Your task to perform on an android device: Add logitech g pro to the cart on target.com, then select checkout. Image 0: 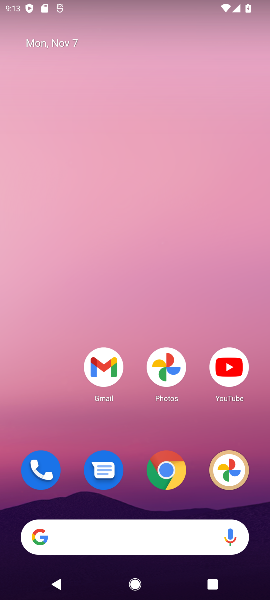
Step 0: click (163, 447)
Your task to perform on an android device: Add logitech g pro to the cart on target.com, then select checkout. Image 1: 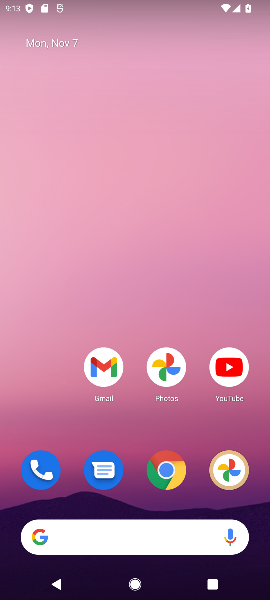
Step 1: click (169, 461)
Your task to perform on an android device: Add logitech g pro to the cart on target.com, then select checkout. Image 2: 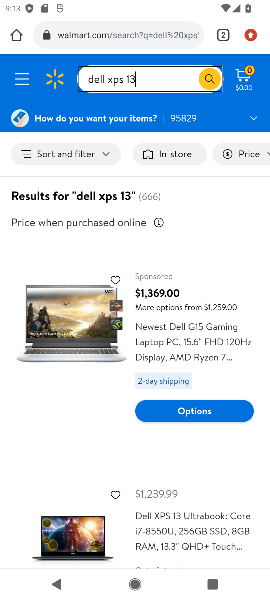
Step 2: click (132, 33)
Your task to perform on an android device: Add logitech g pro to the cart on target.com, then select checkout. Image 3: 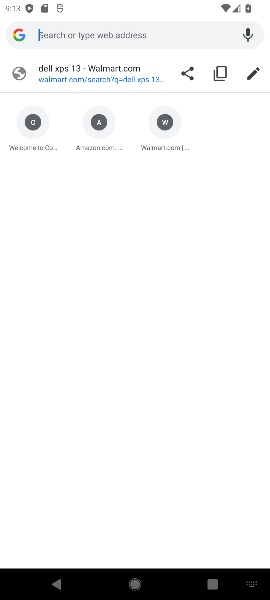
Step 3: type "target"
Your task to perform on an android device: Add logitech g pro to the cart on target.com, then select checkout. Image 4: 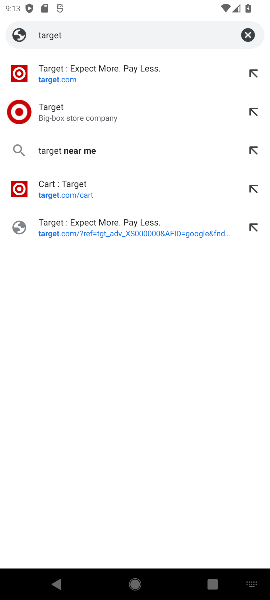
Step 4: click (110, 119)
Your task to perform on an android device: Add logitech g pro to the cart on target.com, then select checkout. Image 5: 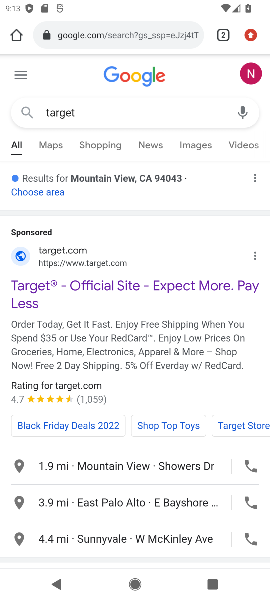
Step 5: click (79, 294)
Your task to perform on an android device: Add logitech g pro to the cart on target.com, then select checkout. Image 6: 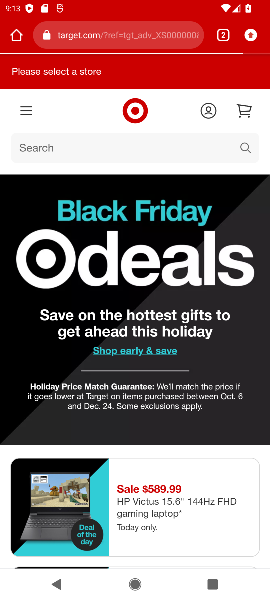
Step 6: click (84, 151)
Your task to perform on an android device: Add logitech g pro to the cart on target.com, then select checkout. Image 7: 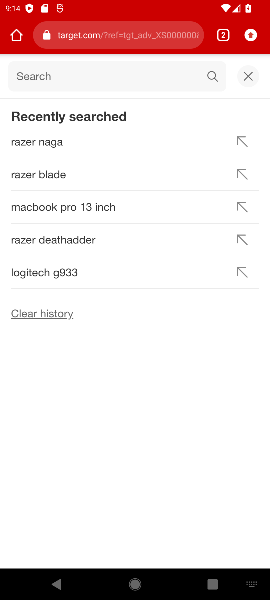
Step 7: type "logitech g pro"
Your task to perform on an android device: Add logitech g pro to the cart on target.com, then select checkout. Image 8: 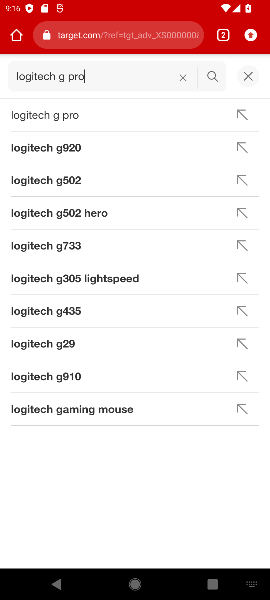
Step 8: click (214, 80)
Your task to perform on an android device: Add logitech g pro to the cart on target.com, then select checkout. Image 9: 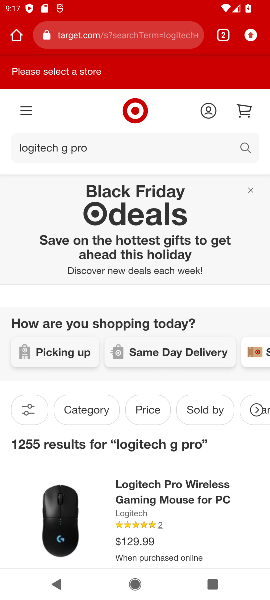
Step 9: drag from (242, 548) to (231, 164)
Your task to perform on an android device: Add logitech g pro to the cart on target.com, then select checkout. Image 10: 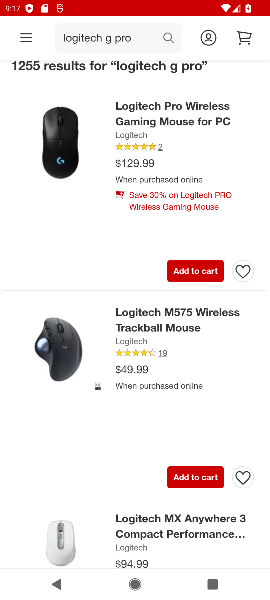
Step 10: click (202, 273)
Your task to perform on an android device: Add logitech g pro to the cart on target.com, then select checkout. Image 11: 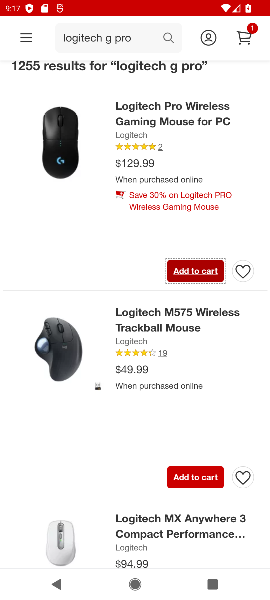
Step 11: task complete